Your task to perform on an android device: check battery use Image 0: 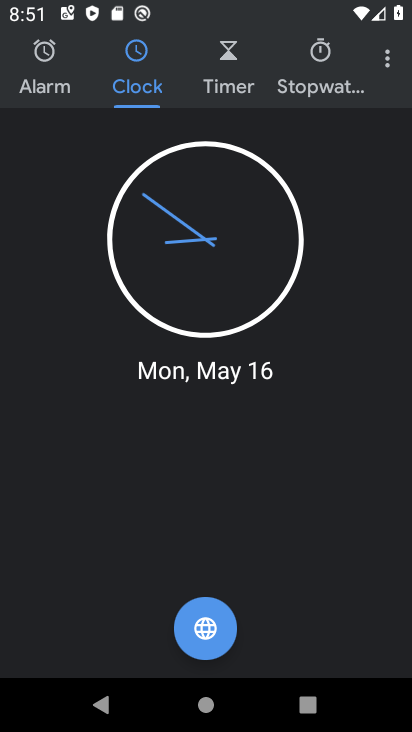
Step 0: press home button
Your task to perform on an android device: check battery use Image 1: 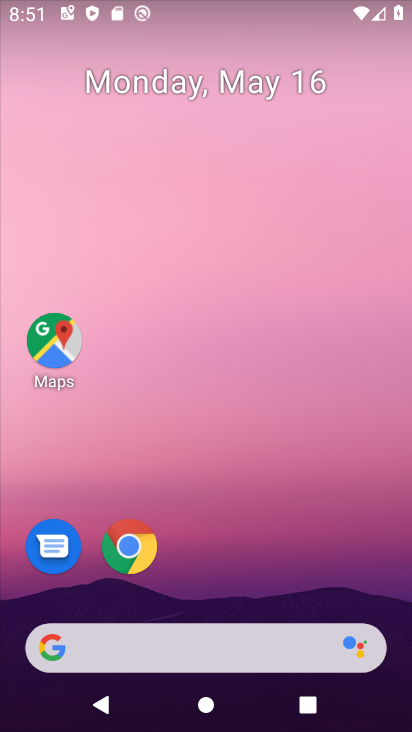
Step 1: drag from (267, 673) to (284, 221)
Your task to perform on an android device: check battery use Image 2: 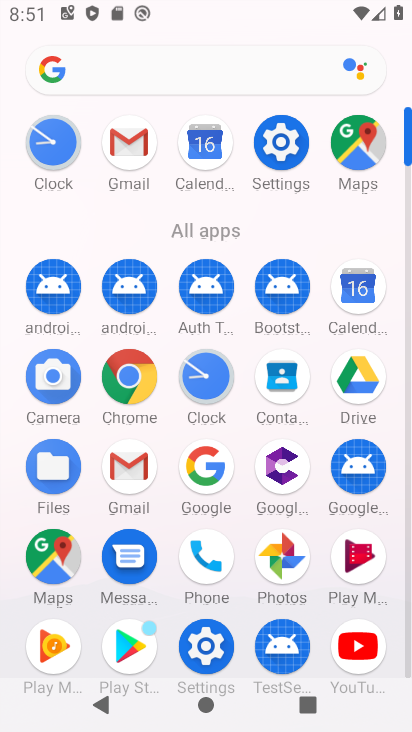
Step 2: click (273, 162)
Your task to perform on an android device: check battery use Image 3: 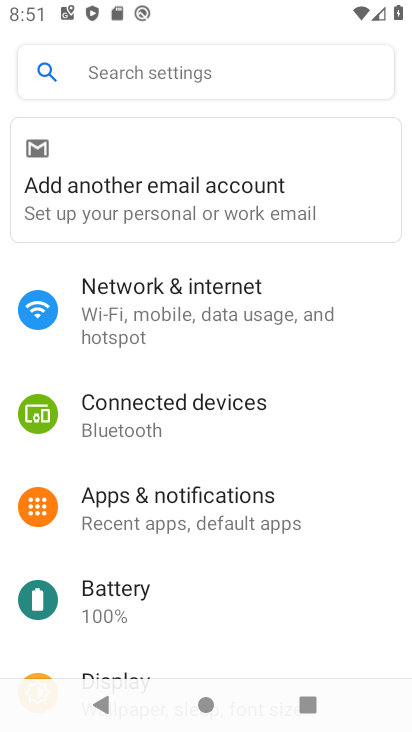
Step 3: click (110, 588)
Your task to perform on an android device: check battery use Image 4: 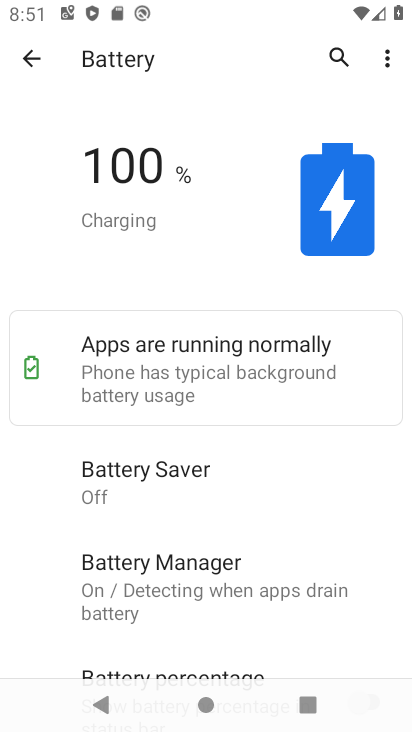
Step 4: task complete